Your task to perform on an android device: turn on showing notifications on the lock screen Image 0: 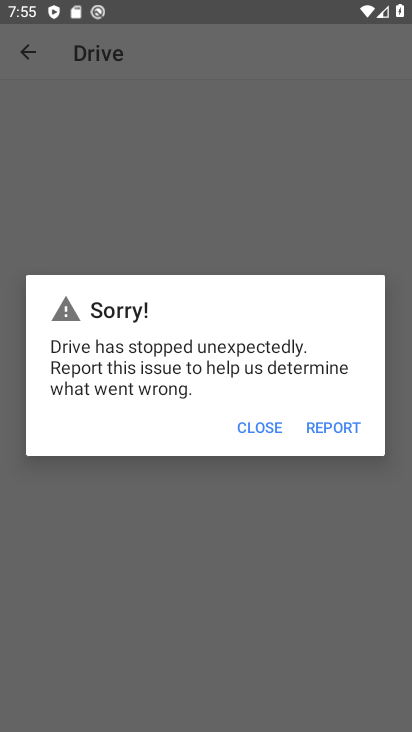
Step 0: press home button
Your task to perform on an android device: turn on showing notifications on the lock screen Image 1: 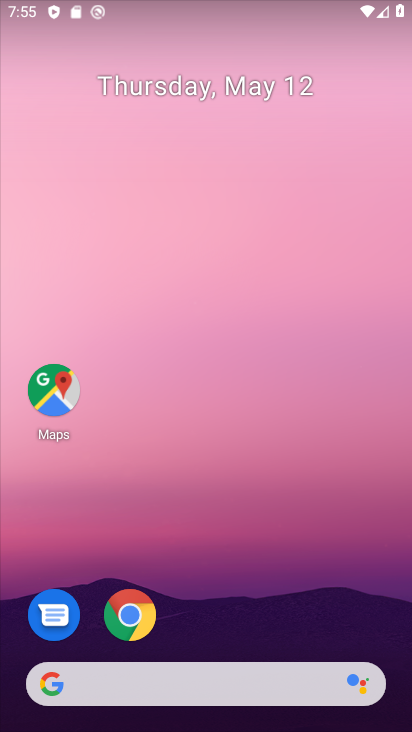
Step 1: drag from (310, 551) to (266, 41)
Your task to perform on an android device: turn on showing notifications on the lock screen Image 2: 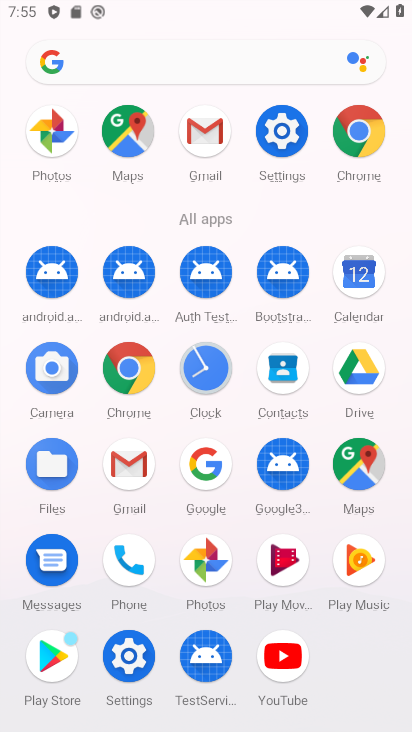
Step 2: click (278, 130)
Your task to perform on an android device: turn on showing notifications on the lock screen Image 3: 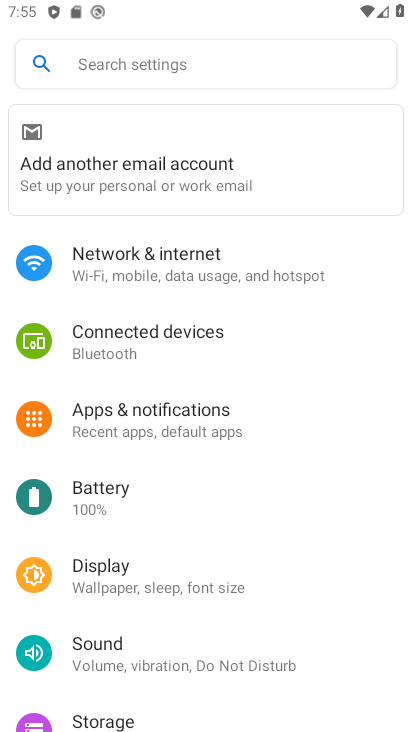
Step 3: click (216, 420)
Your task to perform on an android device: turn on showing notifications on the lock screen Image 4: 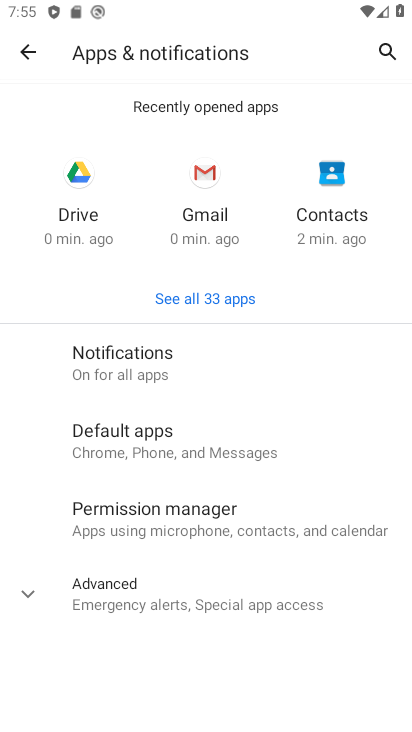
Step 4: click (195, 371)
Your task to perform on an android device: turn on showing notifications on the lock screen Image 5: 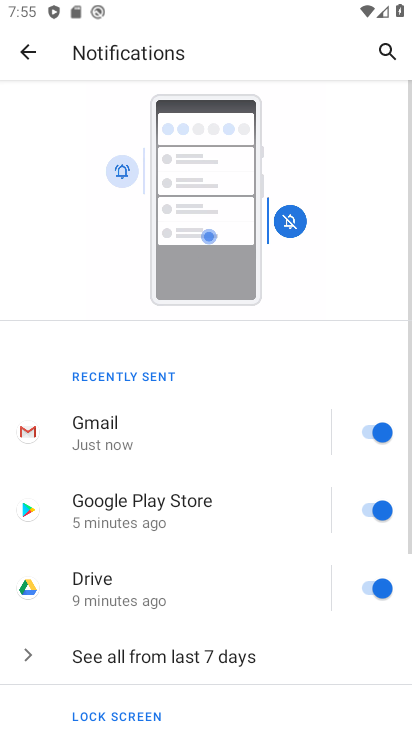
Step 5: drag from (217, 515) to (229, 135)
Your task to perform on an android device: turn on showing notifications on the lock screen Image 6: 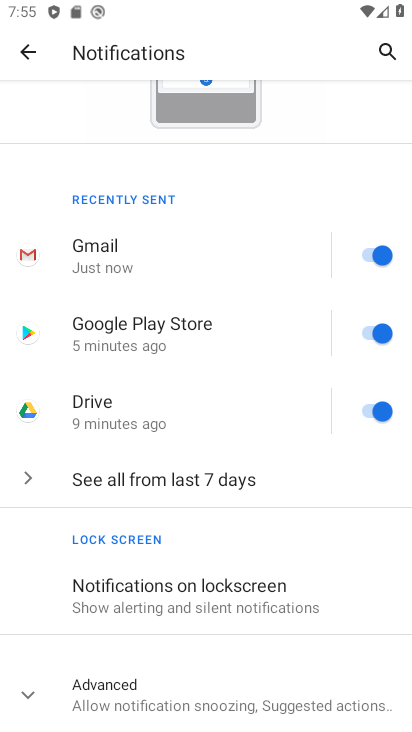
Step 6: drag from (225, 565) to (235, 230)
Your task to perform on an android device: turn on showing notifications on the lock screen Image 7: 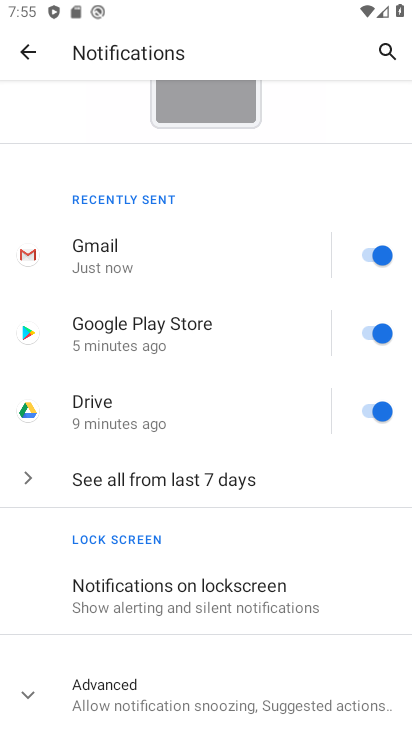
Step 7: click (126, 586)
Your task to perform on an android device: turn on showing notifications on the lock screen Image 8: 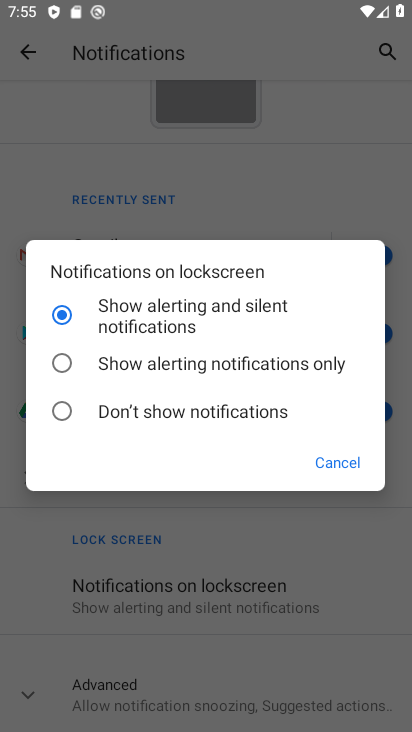
Step 8: click (96, 318)
Your task to perform on an android device: turn on showing notifications on the lock screen Image 9: 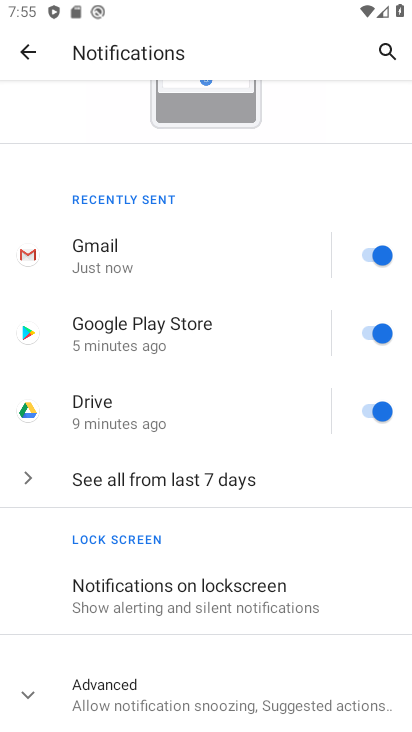
Step 9: task complete